Your task to perform on an android device: Open the Play Movies app and select the watchlist tab. Image 0: 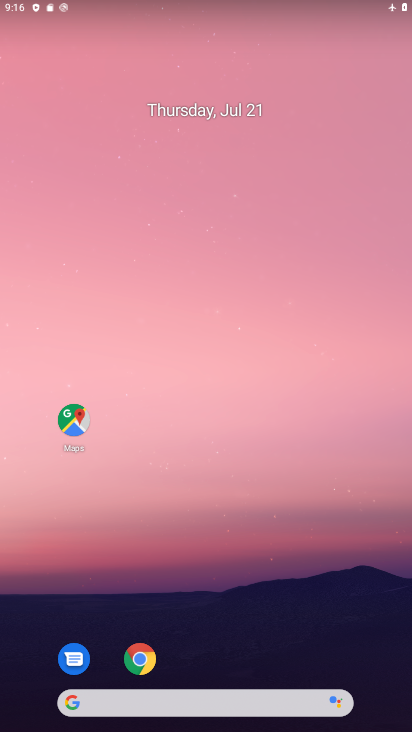
Step 0: click (165, 699)
Your task to perform on an android device: Open the Play Movies app and select the watchlist tab. Image 1: 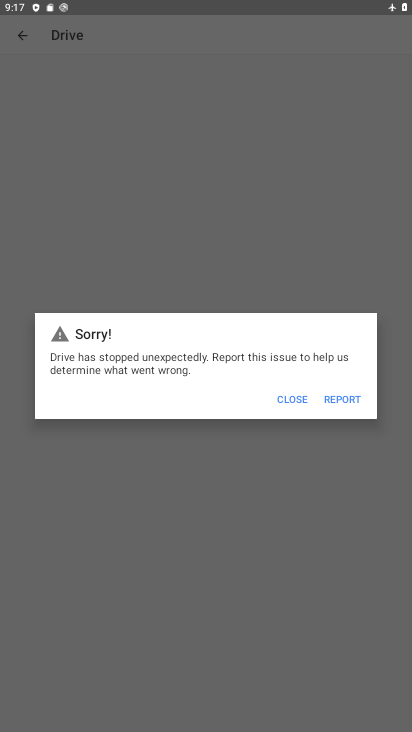
Step 1: press home button
Your task to perform on an android device: Open the Play Movies app and select the watchlist tab. Image 2: 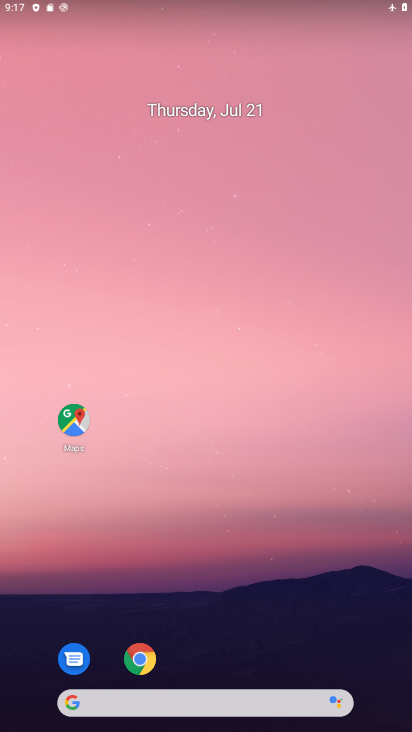
Step 2: drag from (213, 678) to (197, 24)
Your task to perform on an android device: Open the Play Movies app and select the watchlist tab. Image 3: 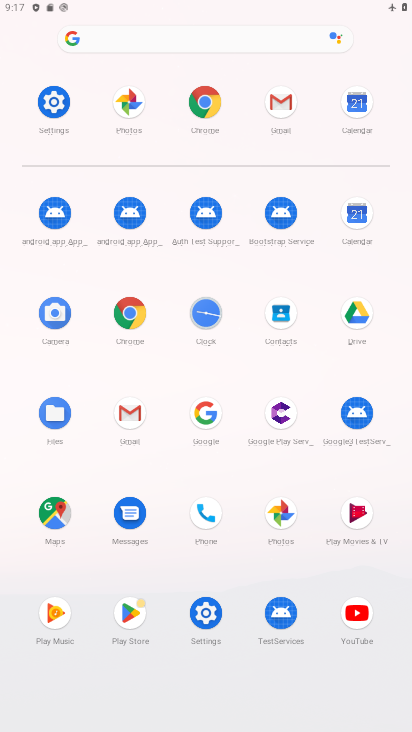
Step 3: click (347, 530)
Your task to perform on an android device: Open the Play Movies app and select the watchlist tab. Image 4: 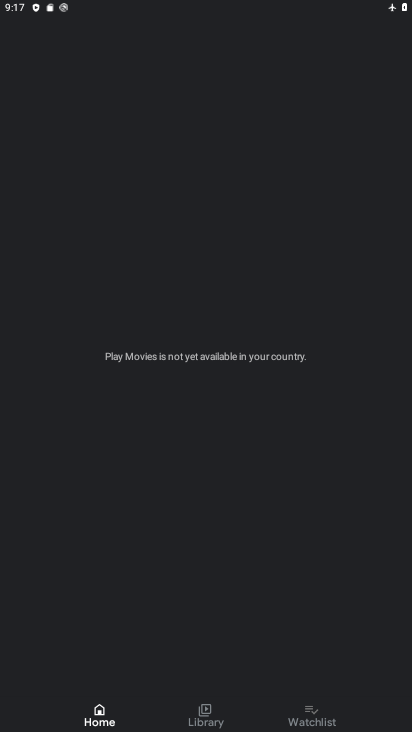
Step 4: click (306, 716)
Your task to perform on an android device: Open the Play Movies app and select the watchlist tab. Image 5: 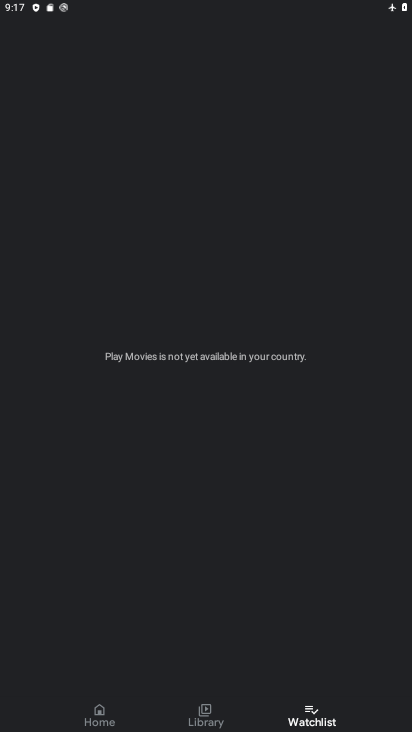
Step 5: task complete